Your task to perform on an android device: Open Google Maps and go to "Timeline" Image 0: 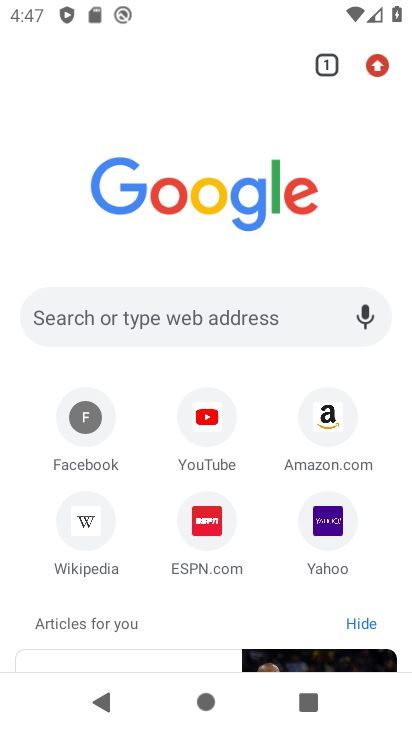
Step 0: press home button
Your task to perform on an android device: Open Google Maps and go to "Timeline" Image 1: 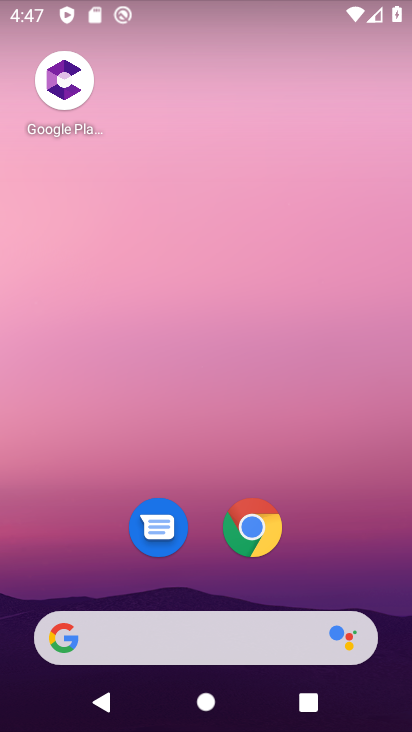
Step 1: click (288, 162)
Your task to perform on an android device: Open Google Maps and go to "Timeline" Image 2: 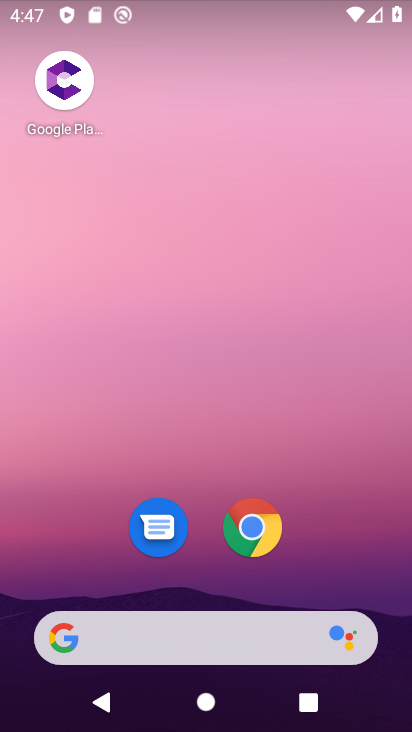
Step 2: click (340, 218)
Your task to perform on an android device: Open Google Maps and go to "Timeline" Image 3: 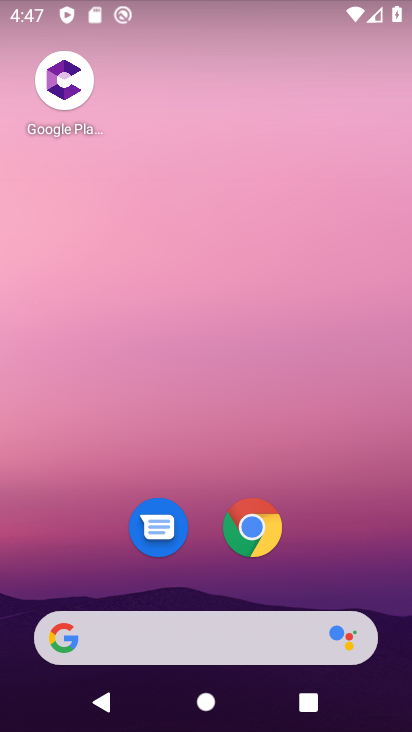
Step 3: drag from (389, 627) to (386, 157)
Your task to perform on an android device: Open Google Maps and go to "Timeline" Image 4: 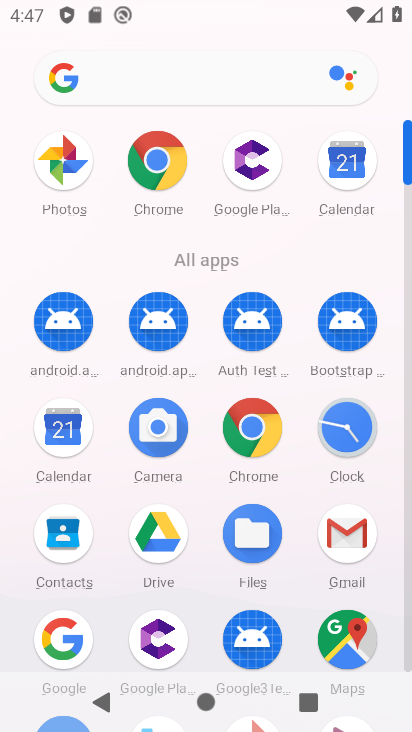
Step 4: click (347, 642)
Your task to perform on an android device: Open Google Maps and go to "Timeline" Image 5: 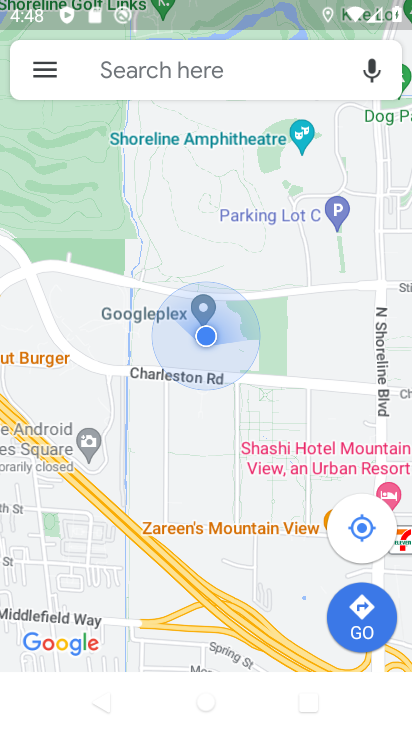
Step 5: click (39, 66)
Your task to perform on an android device: Open Google Maps and go to "Timeline" Image 6: 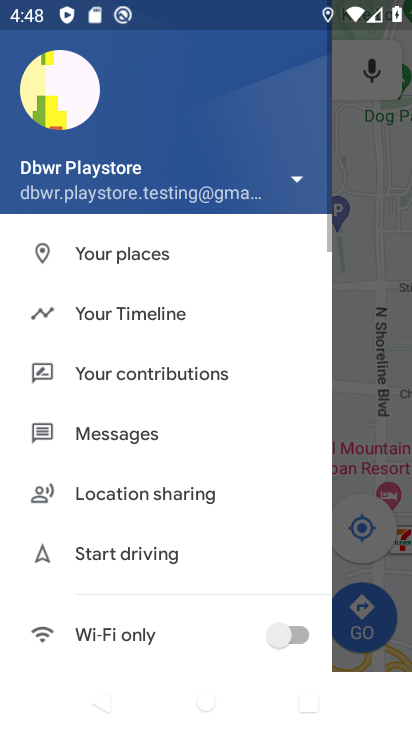
Step 6: click (120, 312)
Your task to perform on an android device: Open Google Maps and go to "Timeline" Image 7: 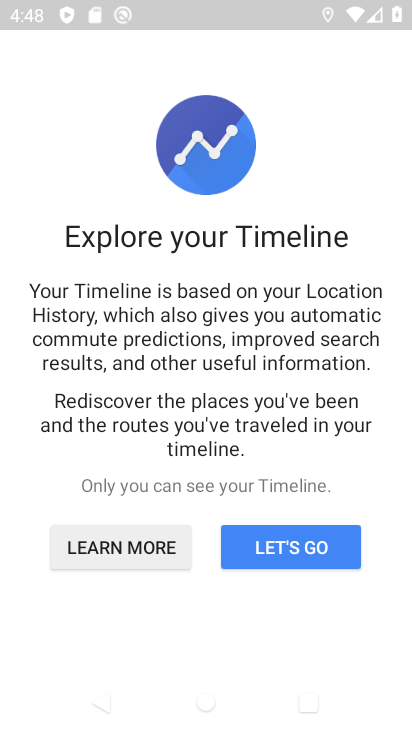
Step 7: click (268, 546)
Your task to perform on an android device: Open Google Maps and go to "Timeline" Image 8: 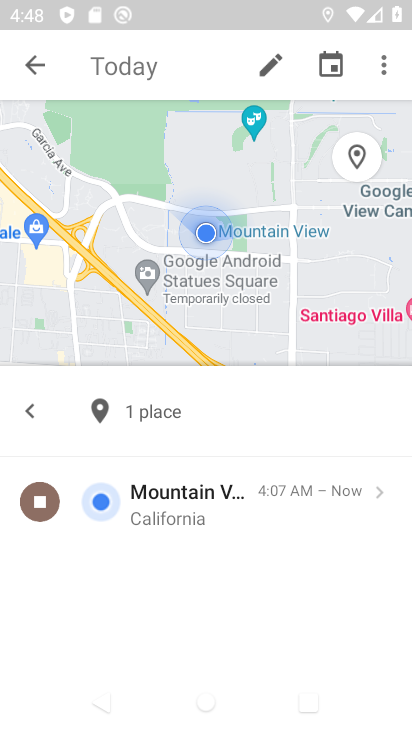
Step 8: task complete